Your task to perform on an android device: open app "Instagram" (install if not already installed) and go to login screen Image 0: 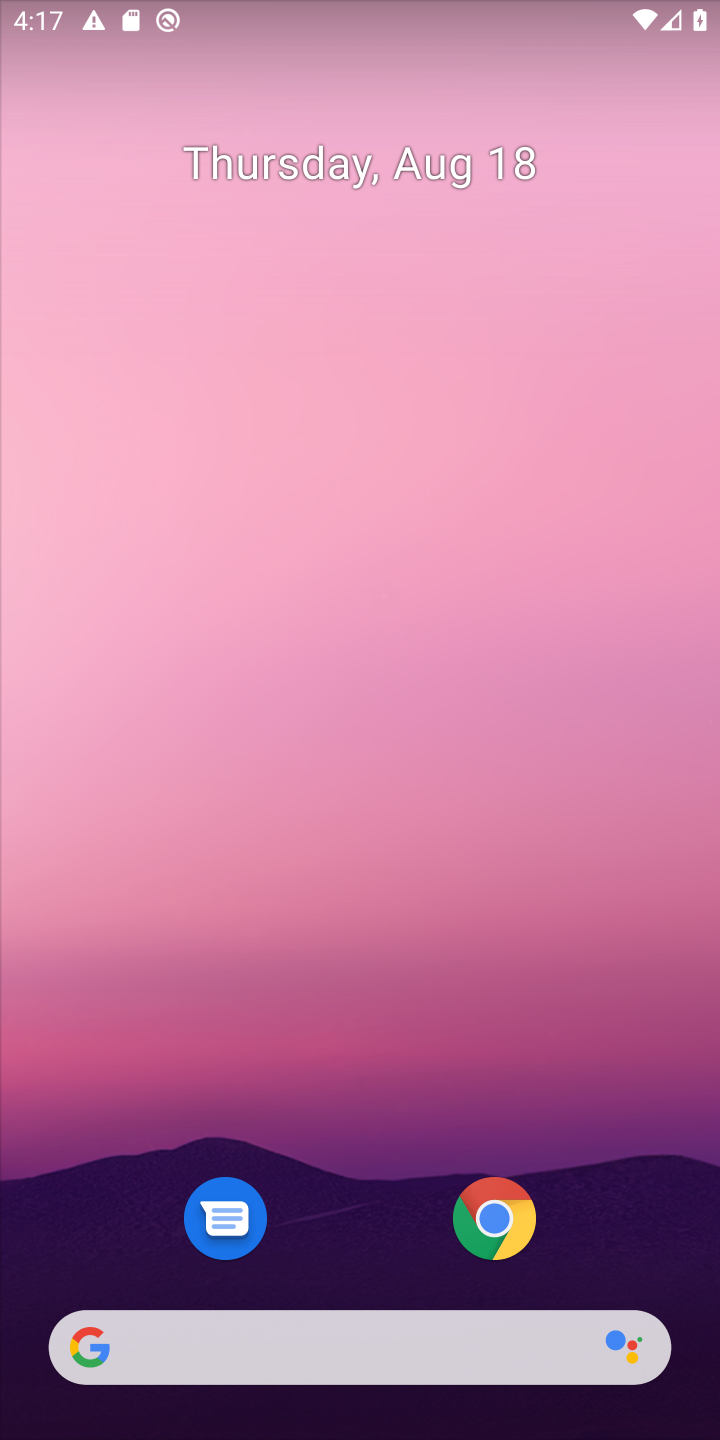
Step 0: drag from (367, 1053) to (367, 481)
Your task to perform on an android device: open app "Instagram" (install if not already installed) and go to login screen Image 1: 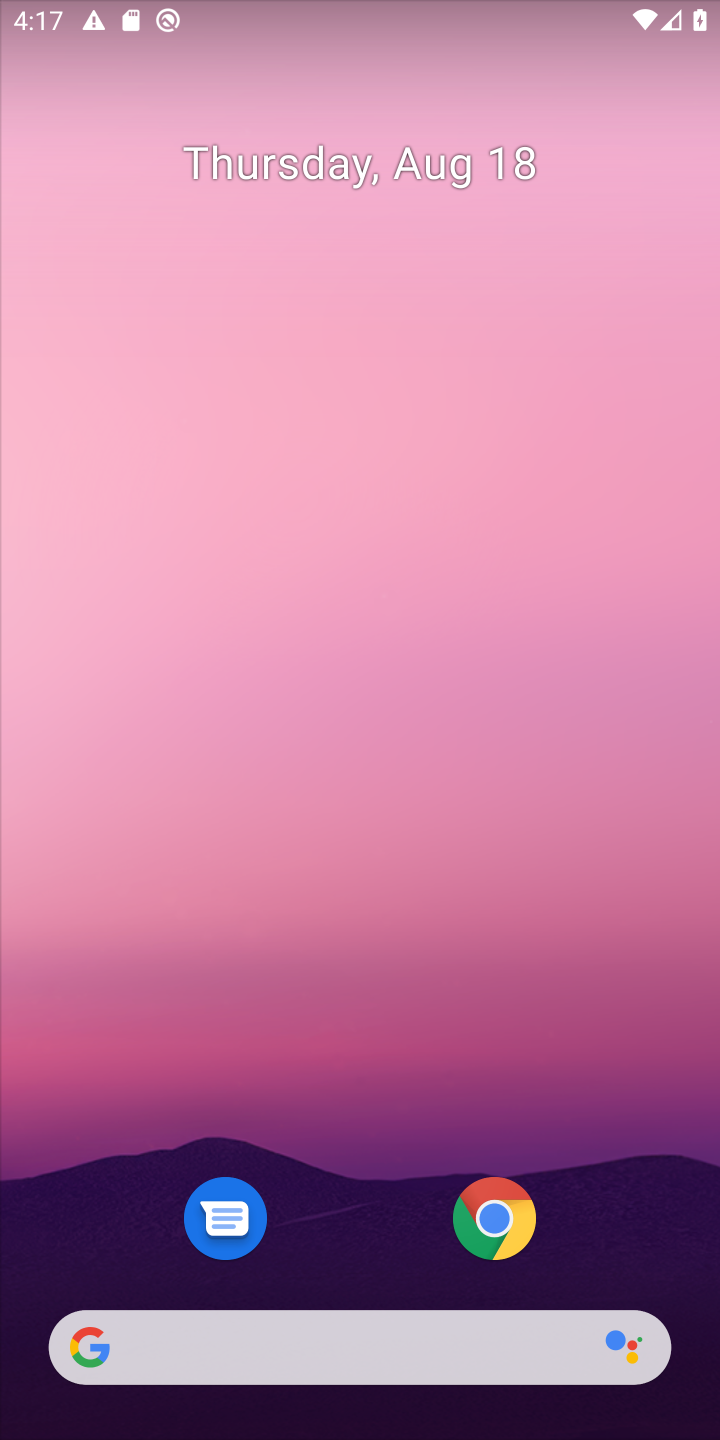
Step 1: drag from (359, 770) to (359, 205)
Your task to perform on an android device: open app "Instagram" (install if not already installed) and go to login screen Image 2: 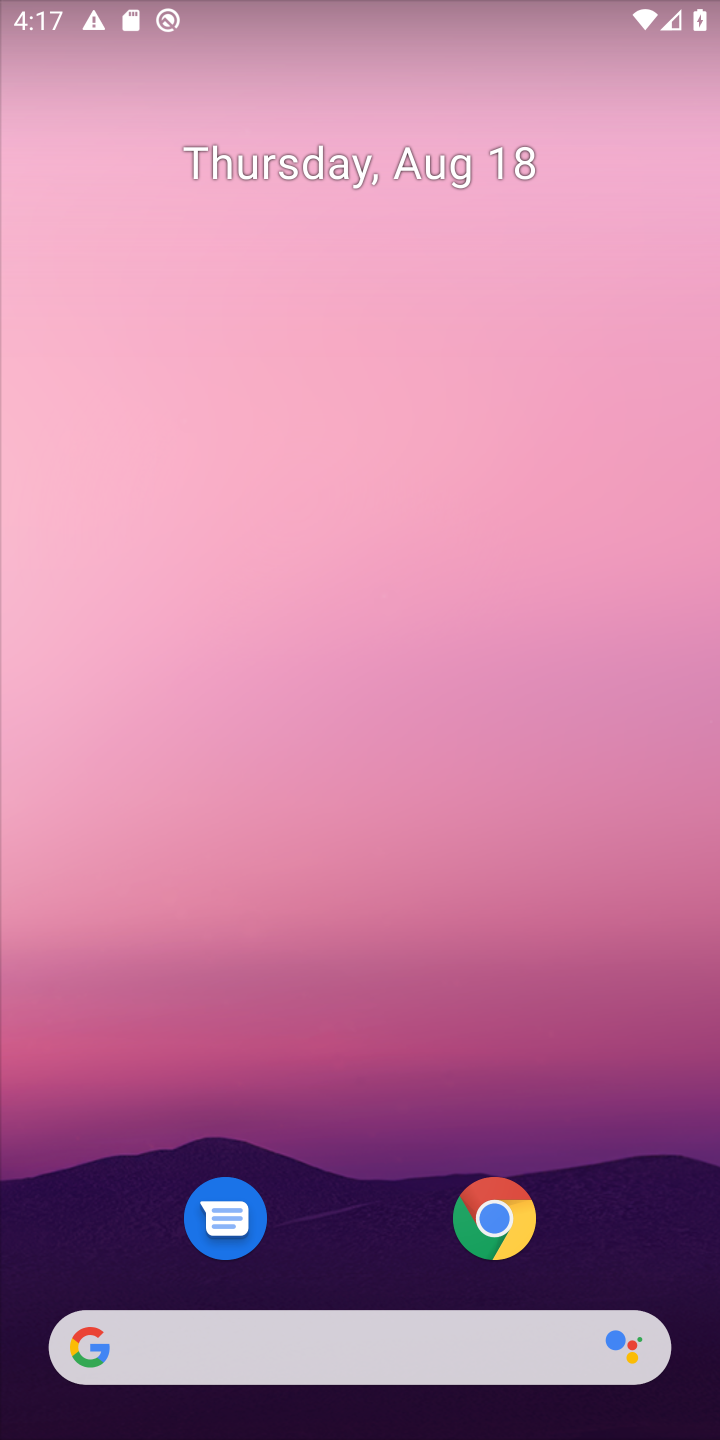
Step 2: drag from (373, 985) to (373, 297)
Your task to perform on an android device: open app "Instagram" (install if not already installed) and go to login screen Image 3: 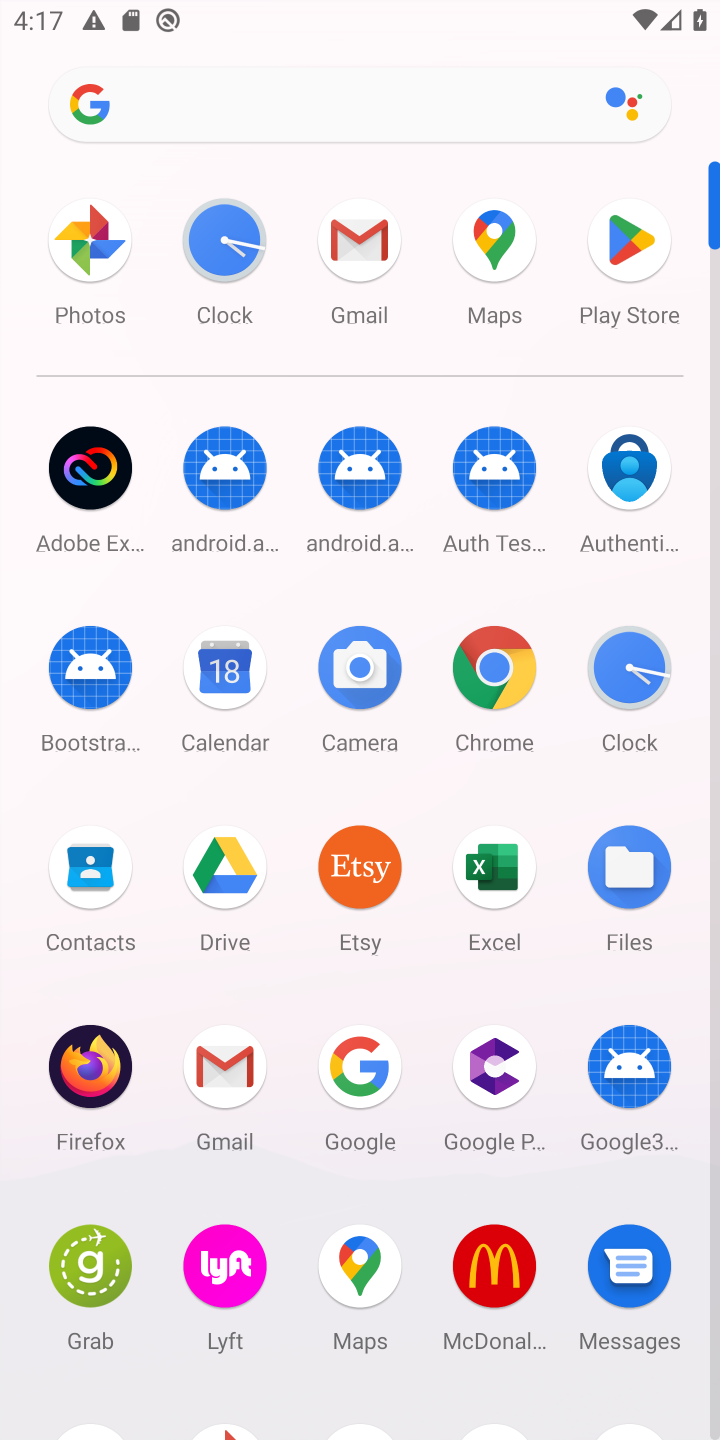
Step 3: click (602, 228)
Your task to perform on an android device: open app "Instagram" (install if not already installed) and go to login screen Image 4: 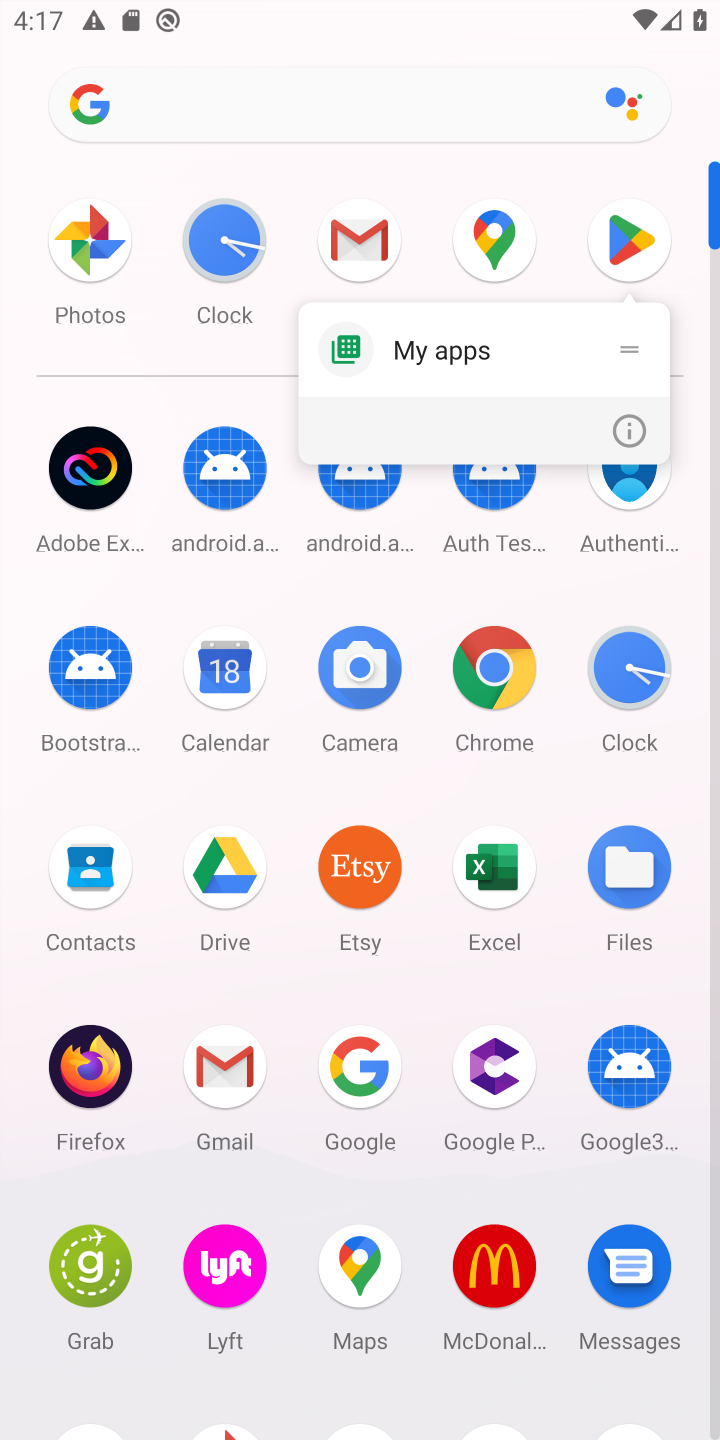
Step 4: click (602, 228)
Your task to perform on an android device: open app "Instagram" (install if not already installed) and go to login screen Image 5: 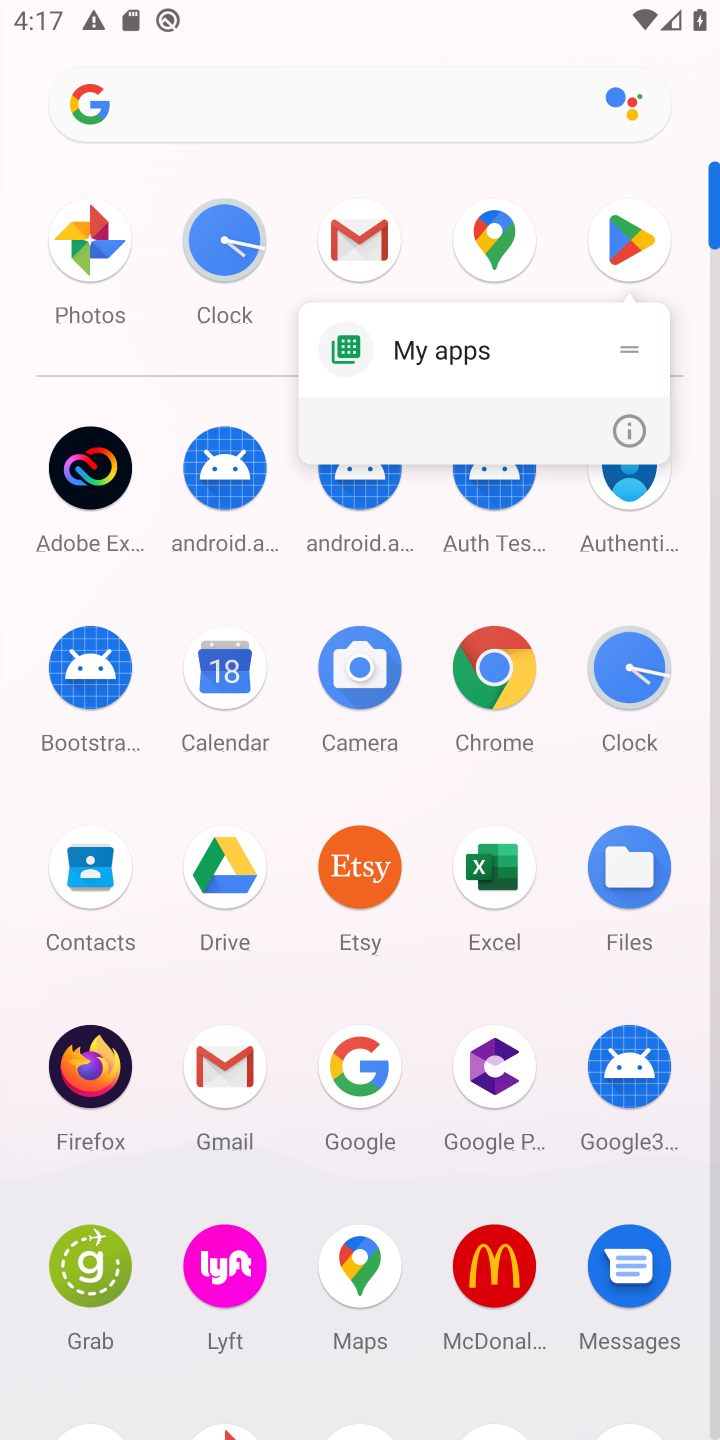
Step 5: click (602, 228)
Your task to perform on an android device: open app "Instagram" (install if not already installed) and go to login screen Image 6: 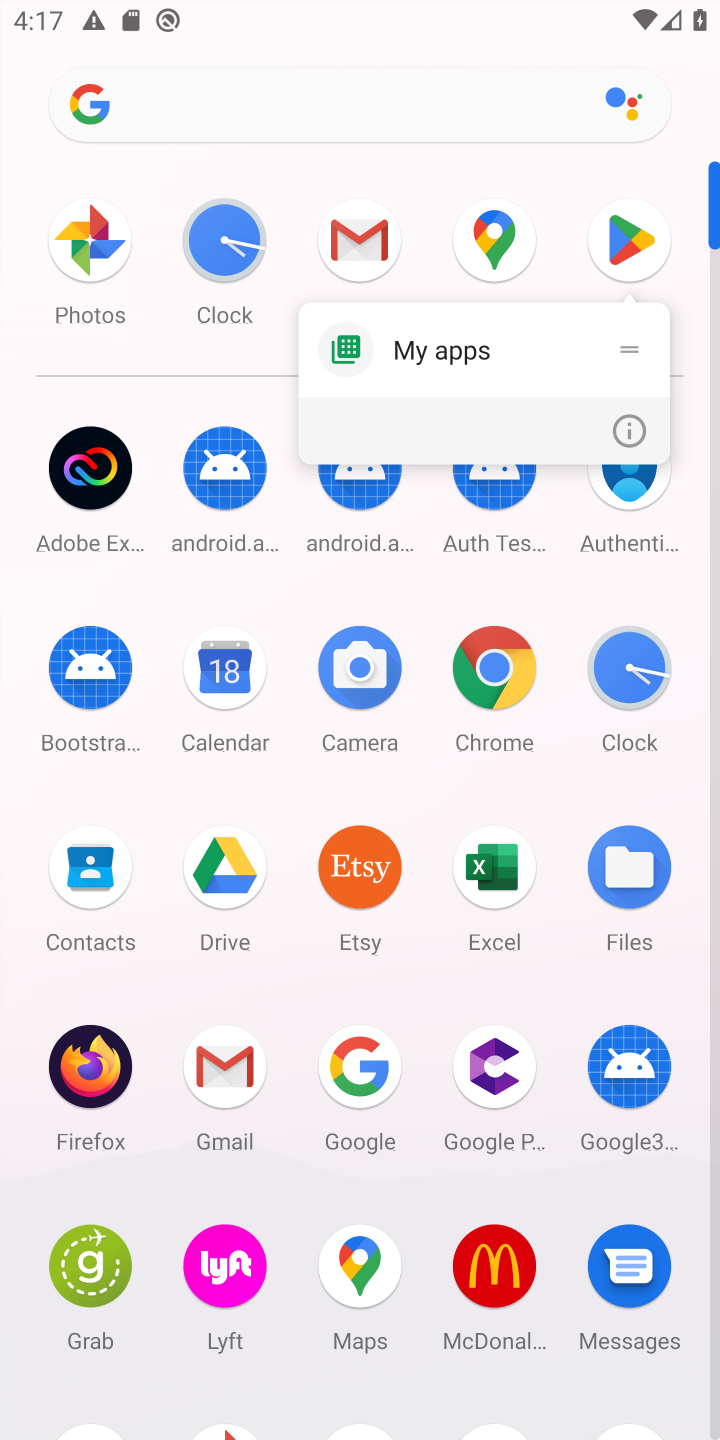
Step 6: click (617, 242)
Your task to perform on an android device: open app "Instagram" (install if not already installed) and go to login screen Image 7: 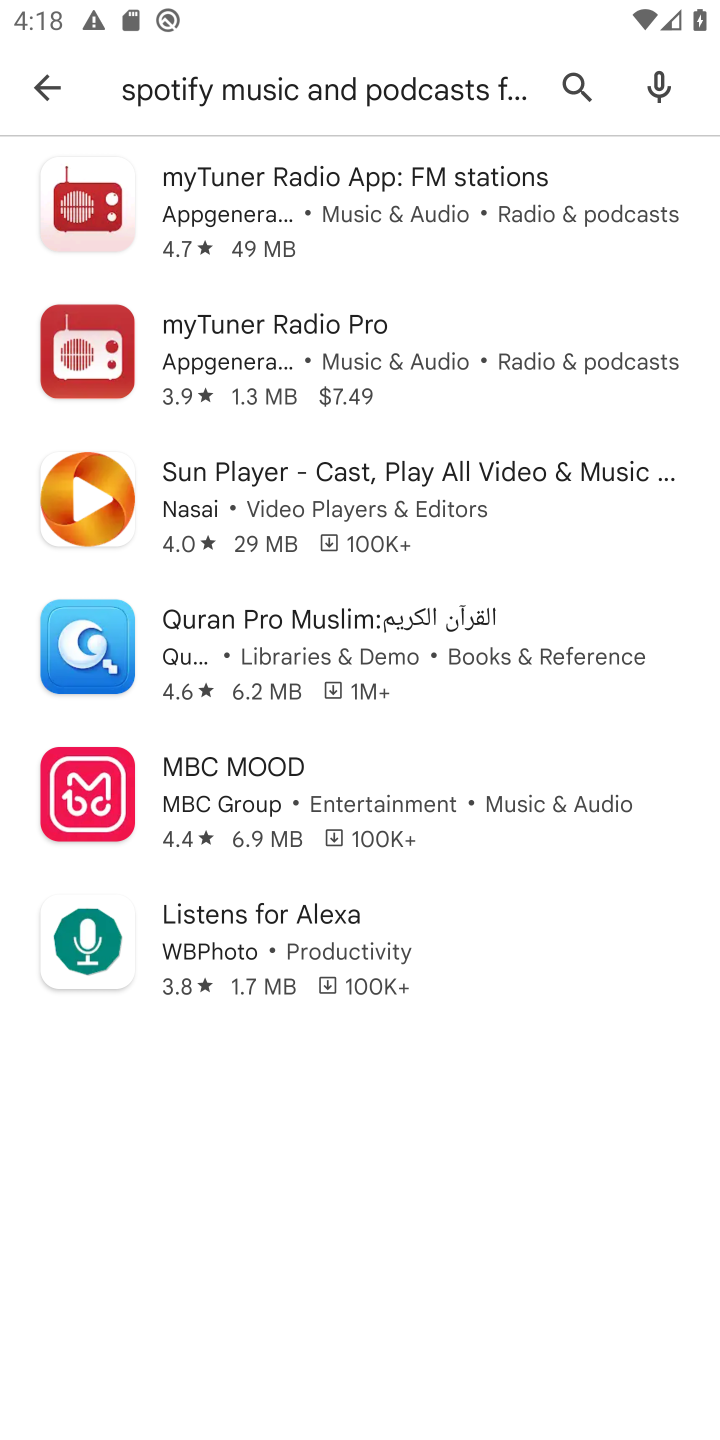
Step 7: click (580, 65)
Your task to perform on an android device: open app "Instagram" (install if not already installed) and go to login screen Image 8: 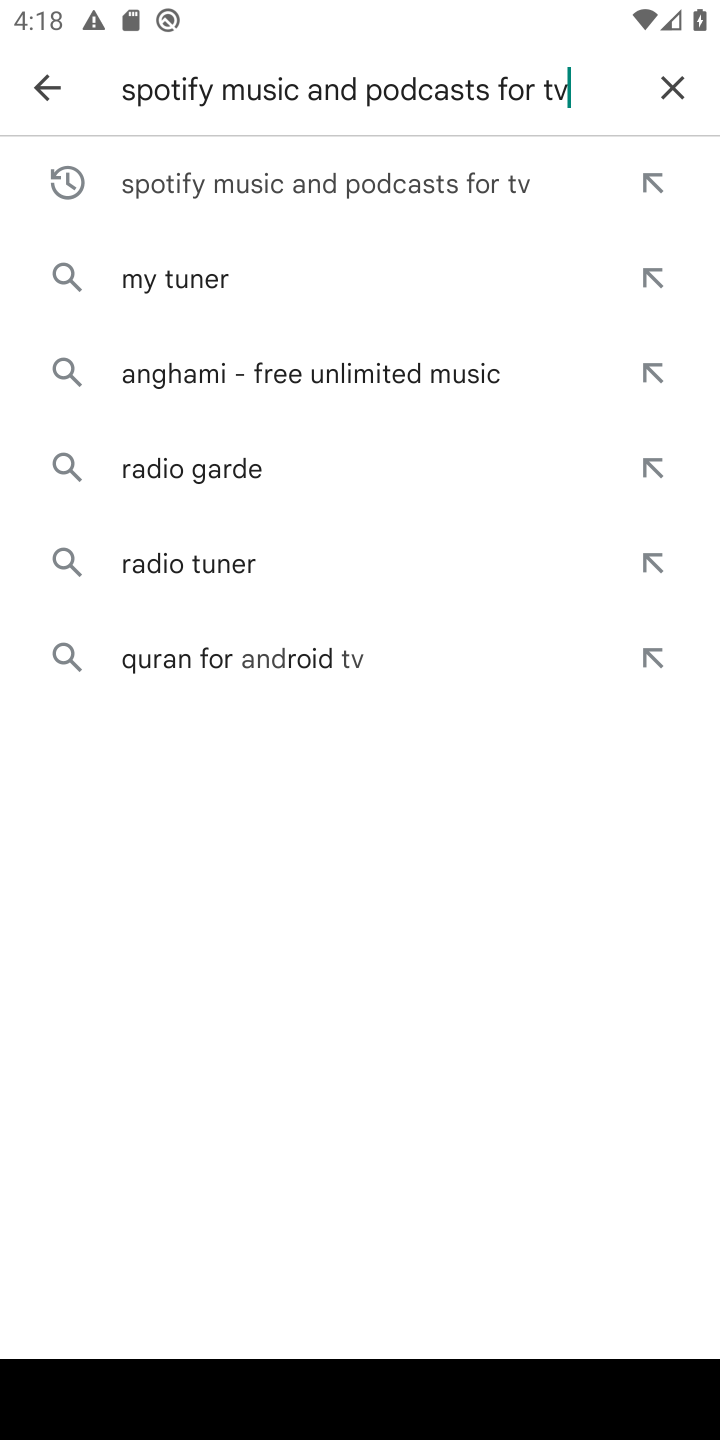
Step 8: click (682, 70)
Your task to perform on an android device: open app "Instagram" (install if not already installed) and go to login screen Image 9: 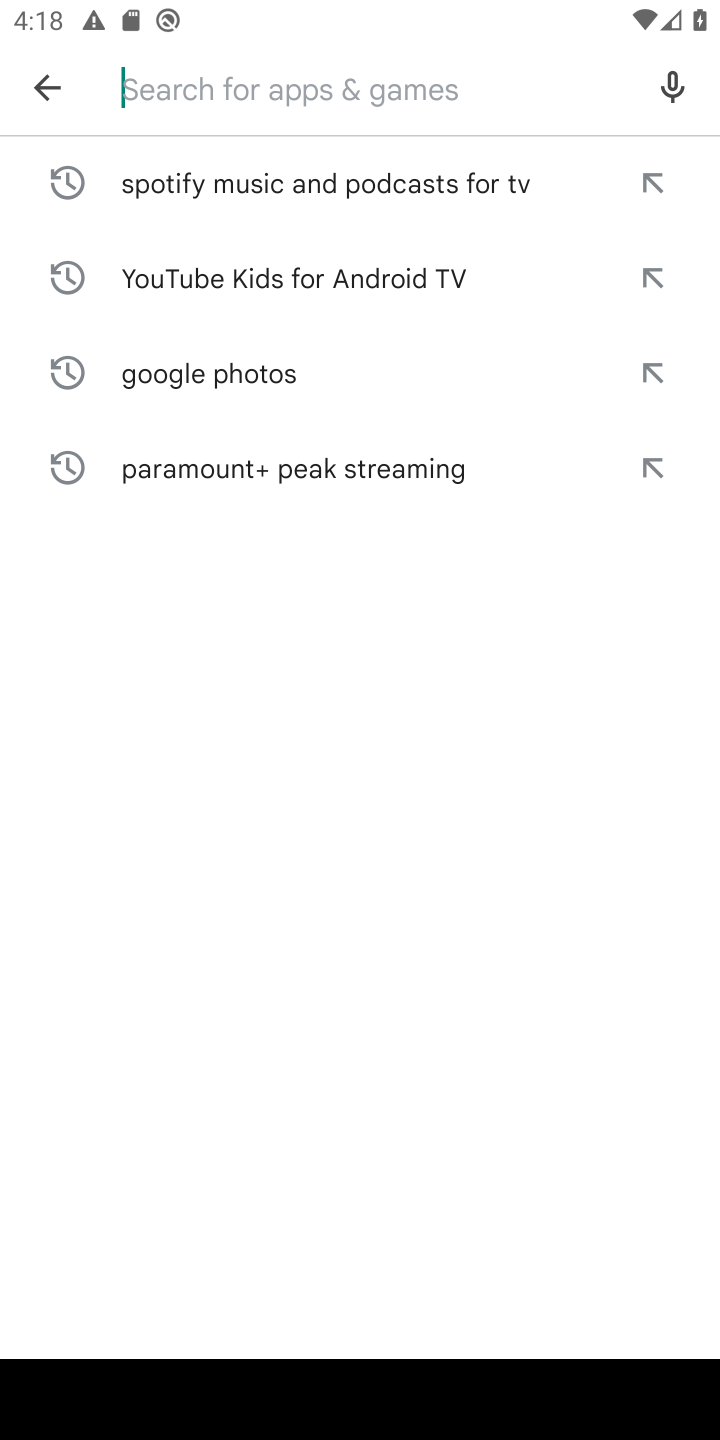
Step 9: type "Instagram"
Your task to perform on an android device: open app "Instagram" (install if not already installed) and go to login screen Image 10: 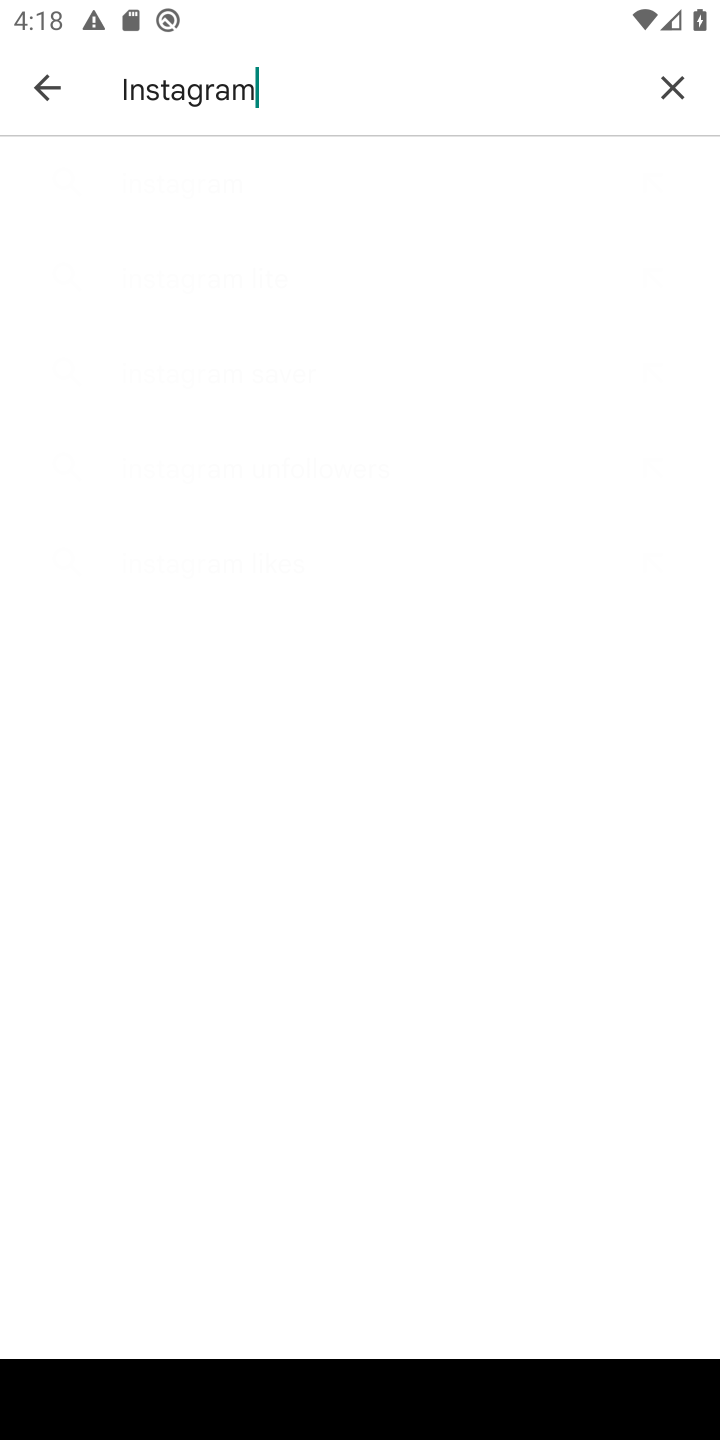
Step 10: type ""
Your task to perform on an android device: open app "Instagram" (install if not already installed) and go to login screen Image 11: 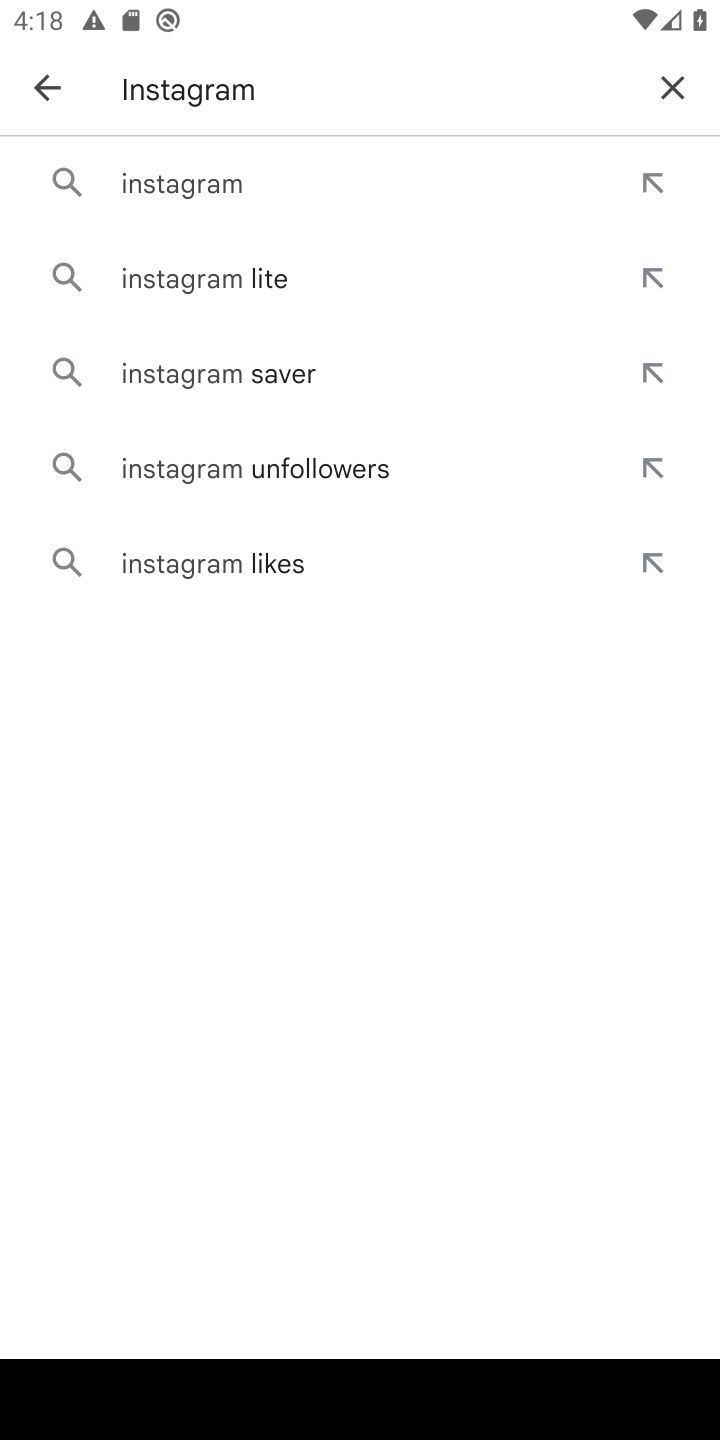
Step 11: click (295, 178)
Your task to perform on an android device: open app "Instagram" (install if not already installed) and go to login screen Image 12: 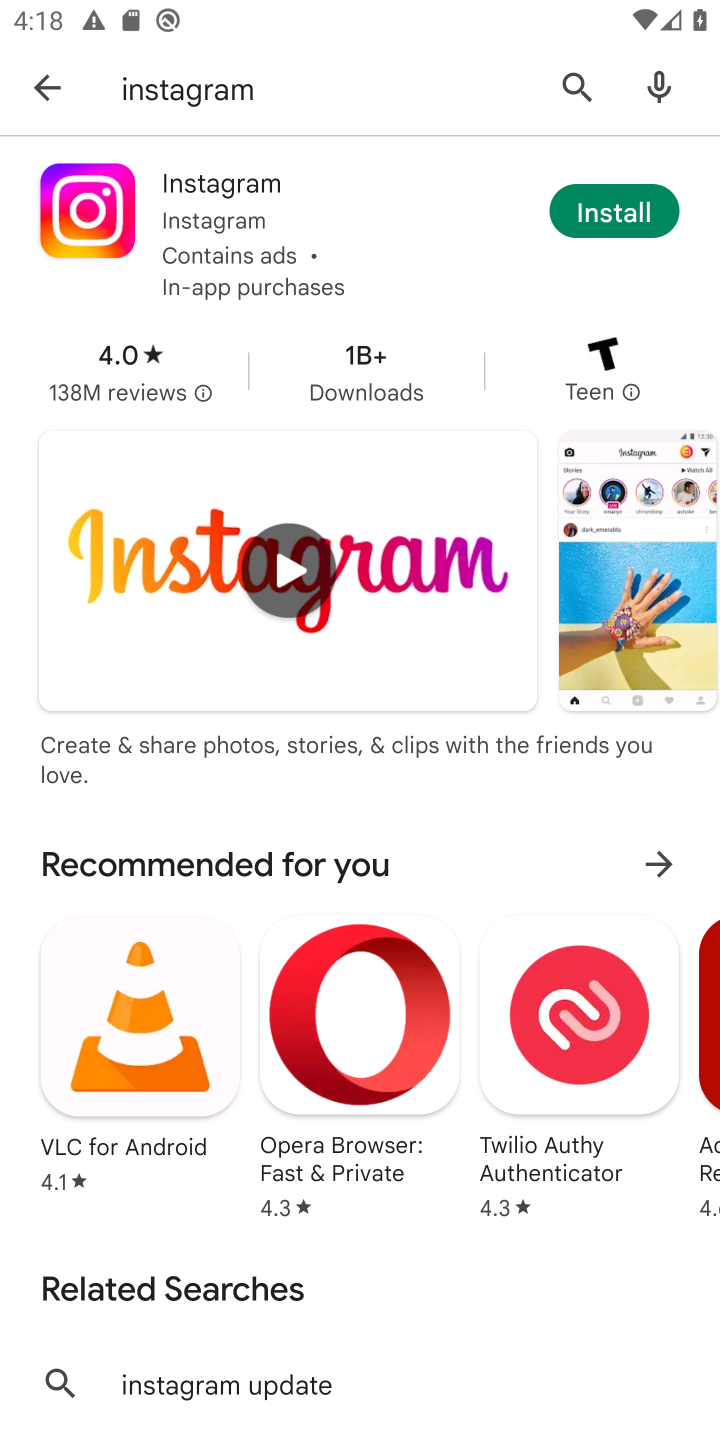
Step 12: click (567, 216)
Your task to perform on an android device: open app "Instagram" (install if not already installed) and go to login screen Image 13: 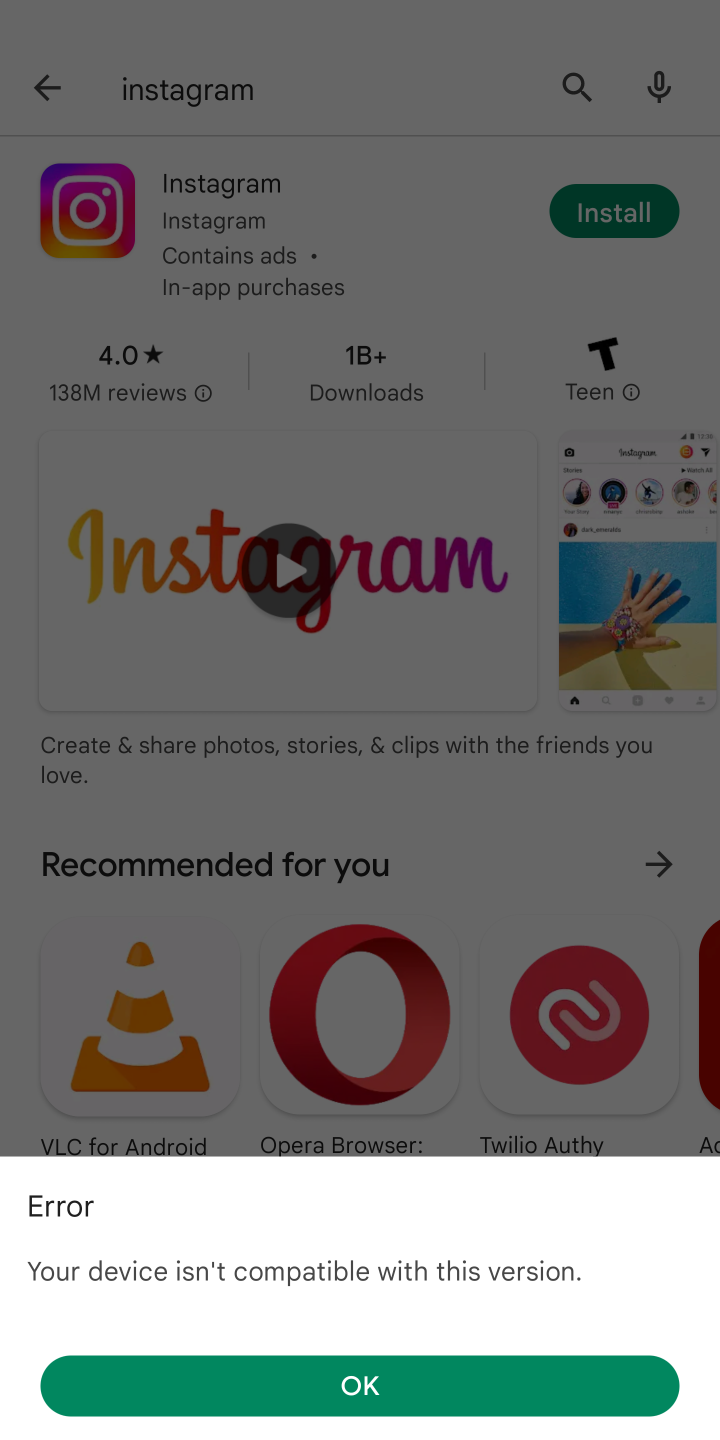
Step 13: task complete